Your task to perform on an android device: Open Chrome and go to the settings page Image 0: 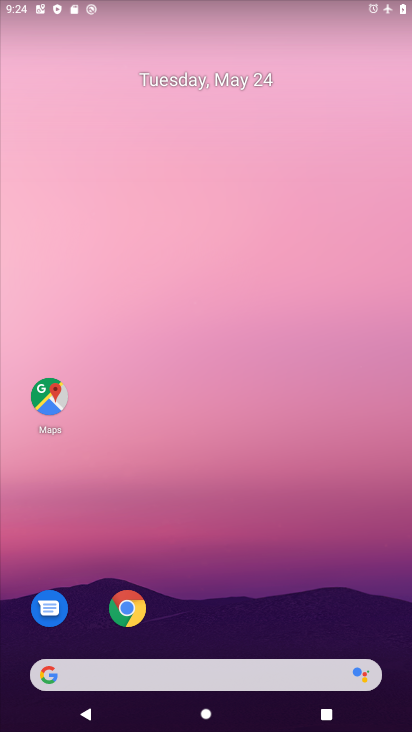
Step 0: click (118, 592)
Your task to perform on an android device: Open Chrome and go to the settings page Image 1: 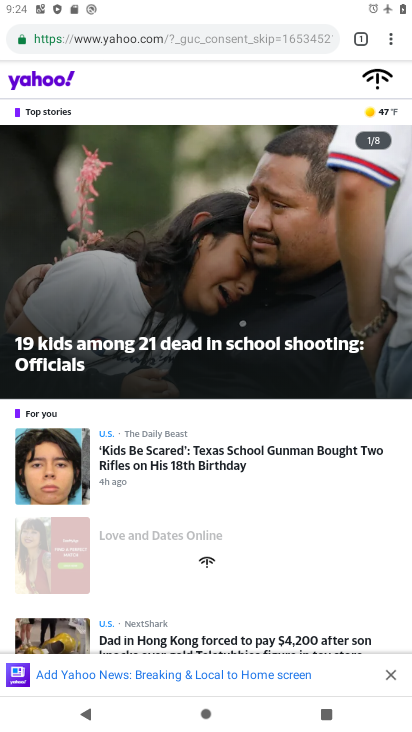
Step 1: click (392, 32)
Your task to perform on an android device: Open Chrome and go to the settings page Image 2: 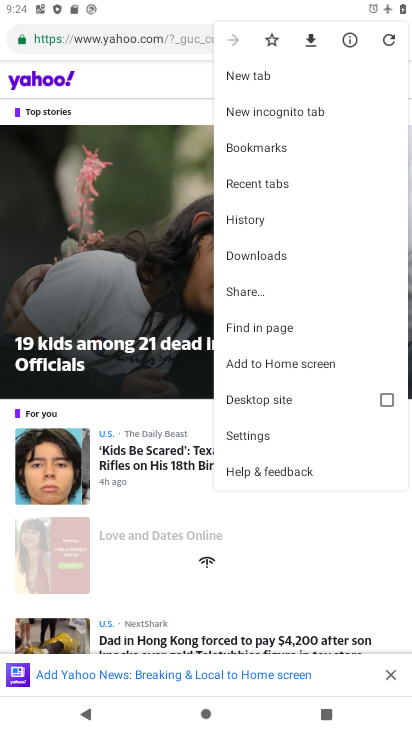
Step 2: click (247, 435)
Your task to perform on an android device: Open Chrome and go to the settings page Image 3: 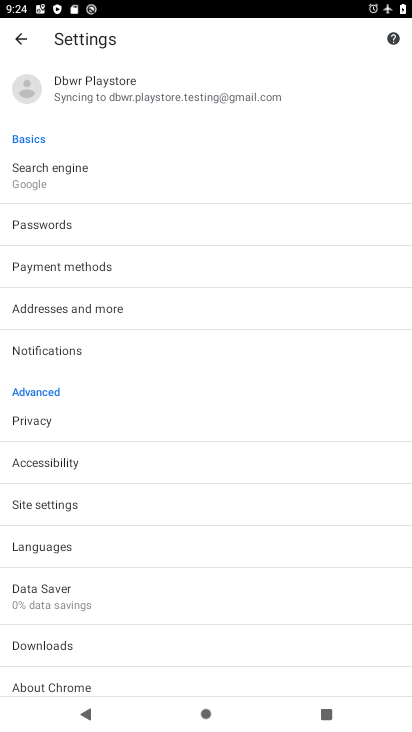
Step 3: task complete